Your task to perform on an android device: Open Yahoo.com Image 0: 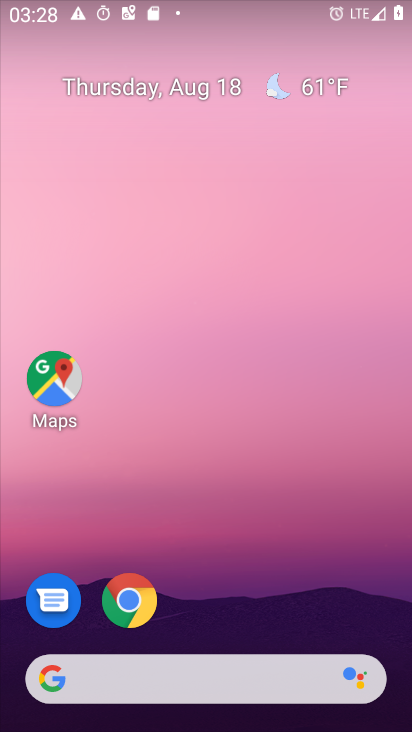
Step 0: press home button
Your task to perform on an android device: Open Yahoo.com Image 1: 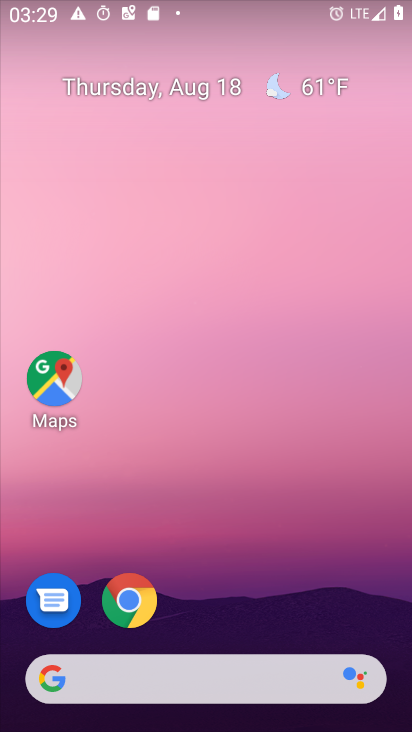
Step 1: click (44, 677)
Your task to perform on an android device: Open Yahoo.com Image 2: 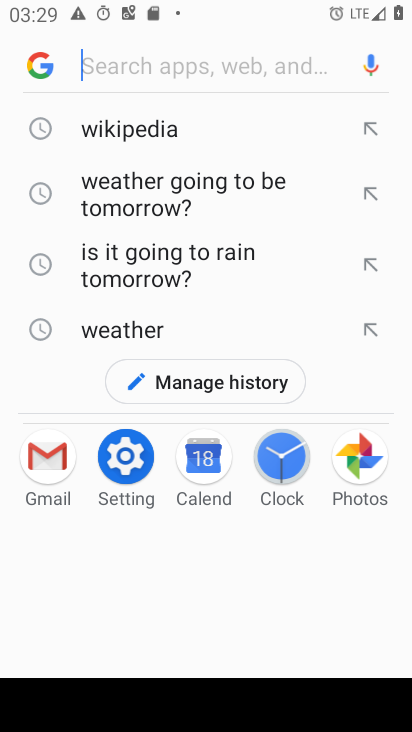
Step 2: type "Yahoo.com"
Your task to perform on an android device: Open Yahoo.com Image 3: 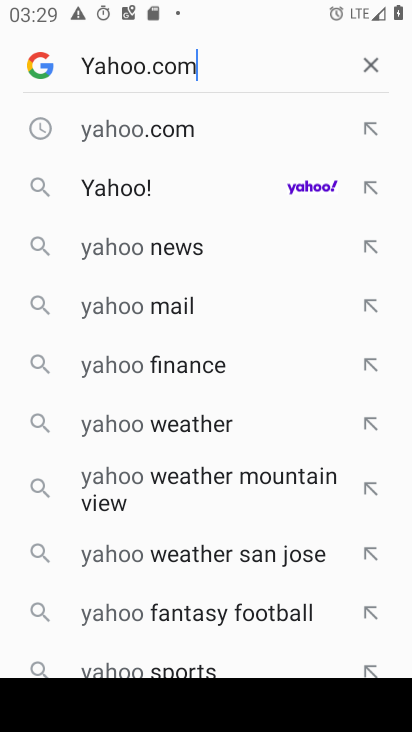
Step 3: press enter
Your task to perform on an android device: Open Yahoo.com Image 4: 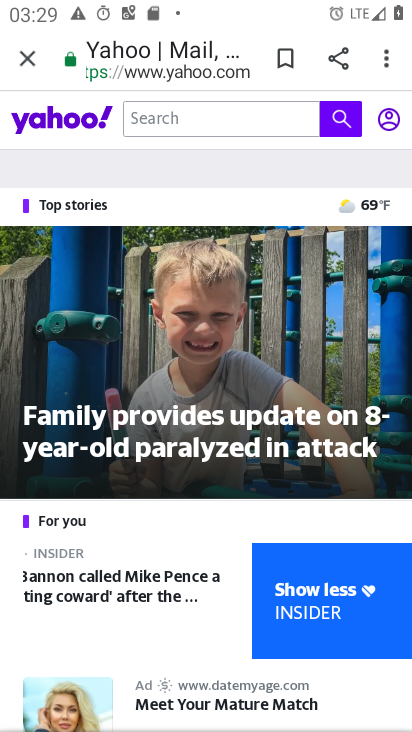
Step 4: task complete